Your task to perform on an android device: Toggle the flashlight Image 0: 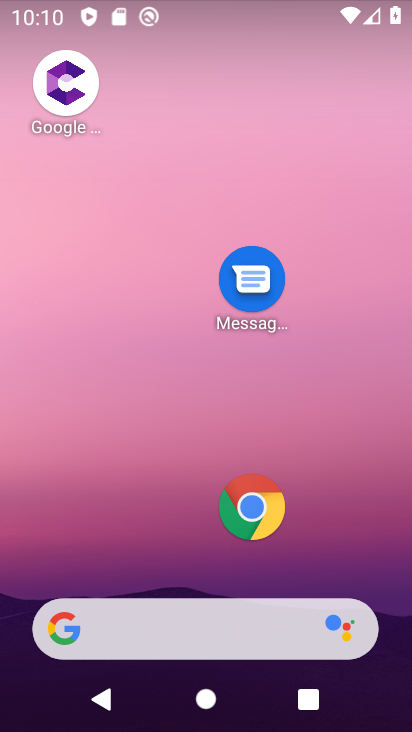
Step 0: drag from (102, 491) to (203, 207)
Your task to perform on an android device: Toggle the flashlight Image 1: 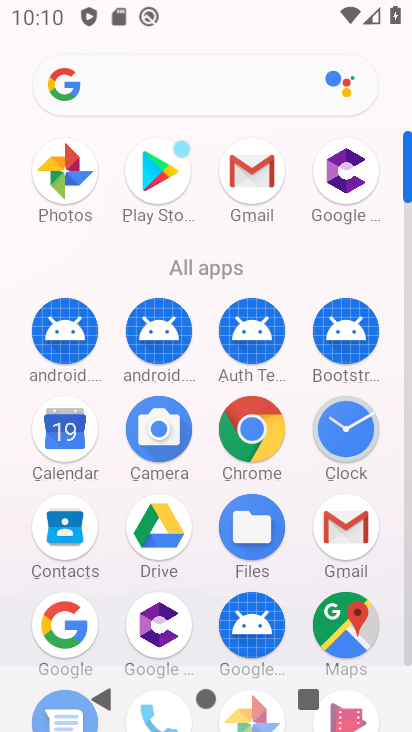
Step 1: drag from (122, 618) to (257, 291)
Your task to perform on an android device: Toggle the flashlight Image 2: 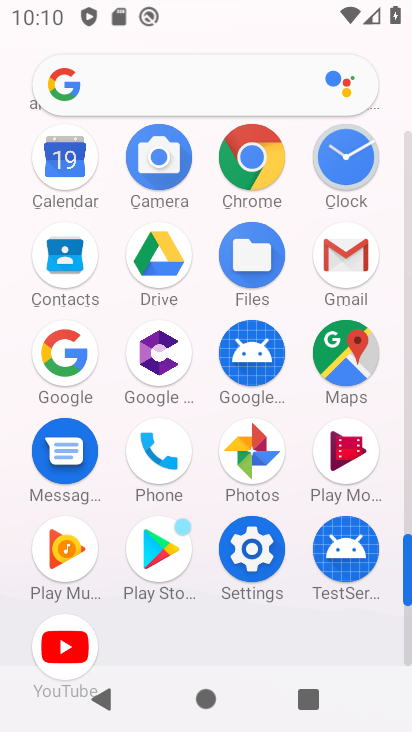
Step 2: click (258, 554)
Your task to perform on an android device: Toggle the flashlight Image 3: 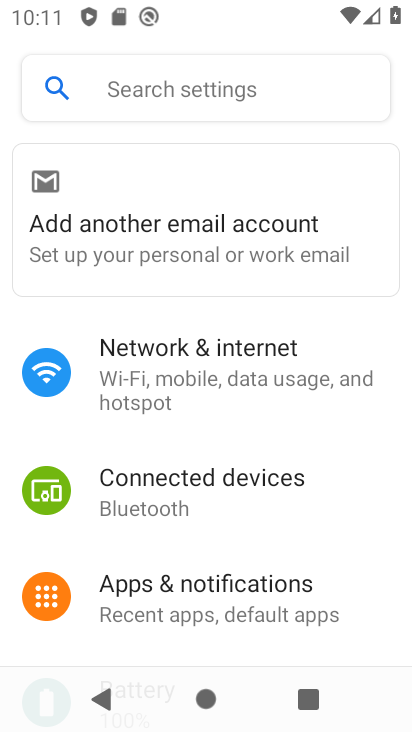
Step 3: task complete